Your task to perform on an android device: turn off notifications in google photos Image 0: 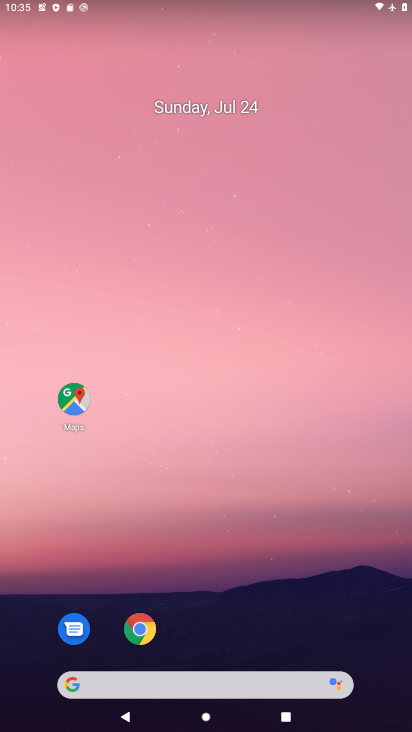
Step 0: drag from (210, 666) to (192, 66)
Your task to perform on an android device: turn off notifications in google photos Image 1: 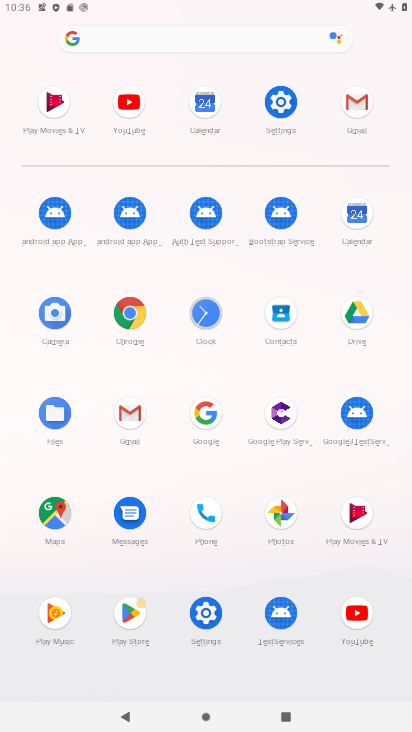
Step 1: click (266, 498)
Your task to perform on an android device: turn off notifications in google photos Image 2: 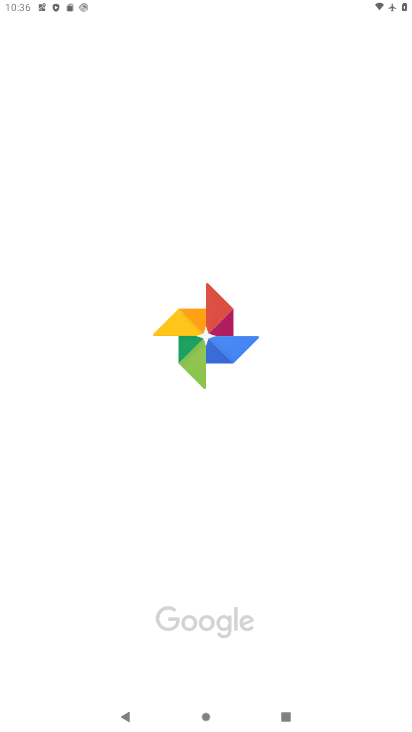
Step 2: task complete